Your task to perform on an android device: Play the last video I watched on Youtube Image 0: 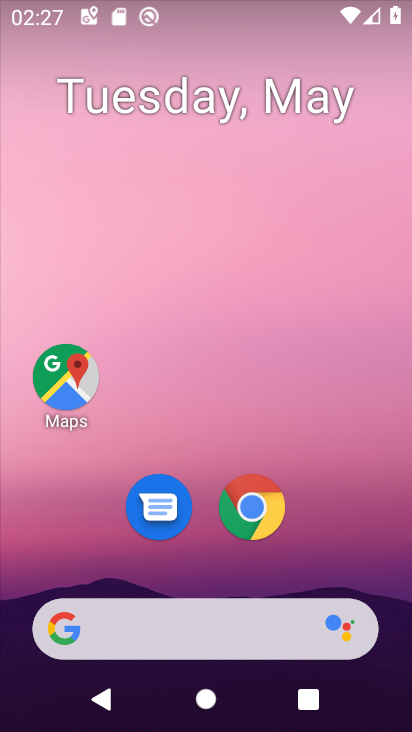
Step 0: drag from (187, 579) to (172, 176)
Your task to perform on an android device: Play the last video I watched on Youtube Image 1: 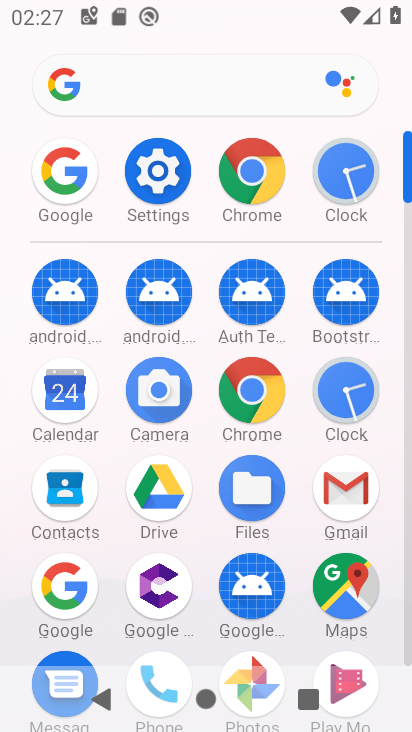
Step 1: drag from (194, 577) to (213, 283)
Your task to perform on an android device: Play the last video I watched on Youtube Image 2: 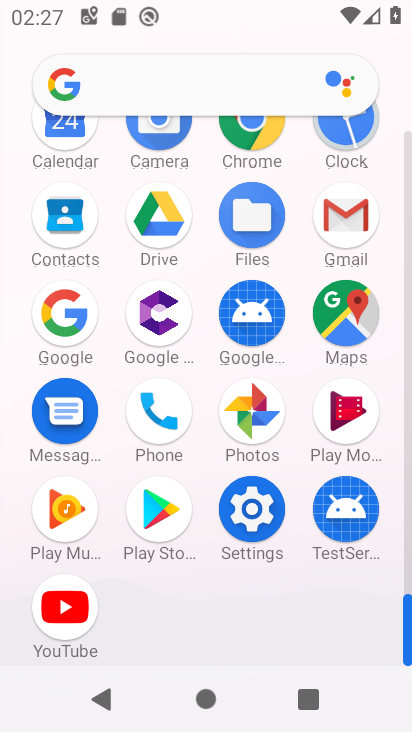
Step 2: click (71, 595)
Your task to perform on an android device: Play the last video I watched on Youtube Image 3: 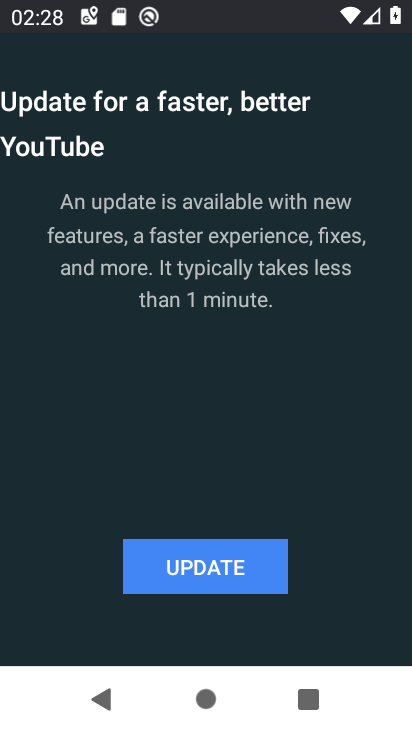
Step 3: click (194, 580)
Your task to perform on an android device: Play the last video I watched on Youtube Image 4: 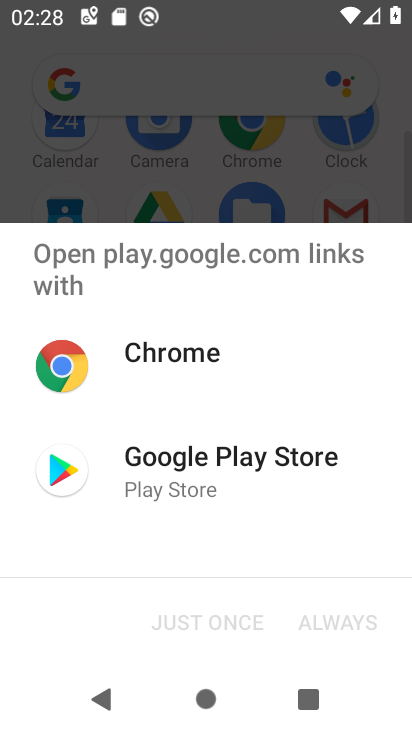
Step 4: click (221, 459)
Your task to perform on an android device: Play the last video I watched on Youtube Image 5: 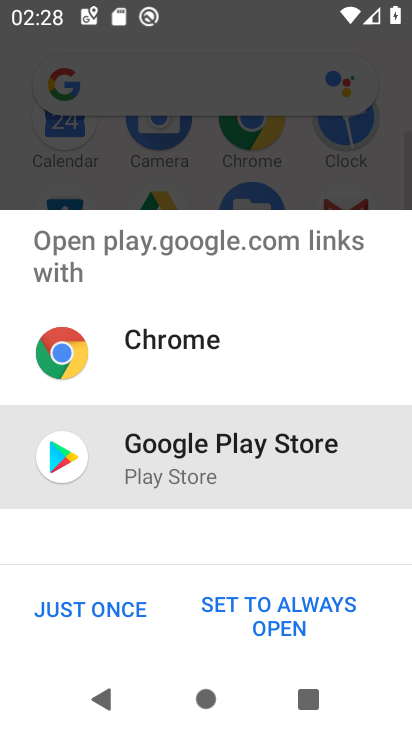
Step 5: click (118, 594)
Your task to perform on an android device: Play the last video I watched on Youtube Image 6: 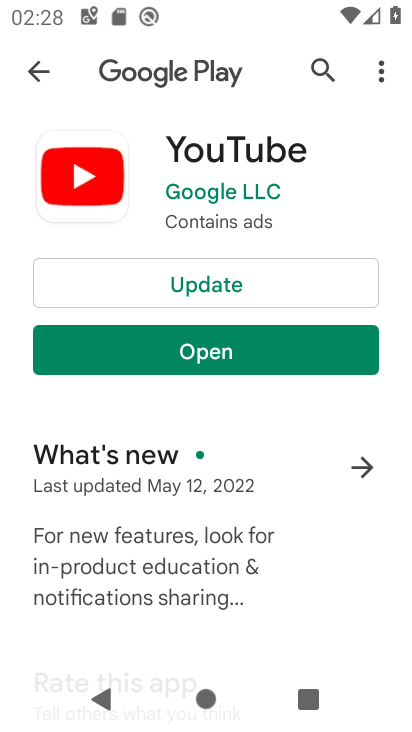
Step 6: click (192, 295)
Your task to perform on an android device: Play the last video I watched on Youtube Image 7: 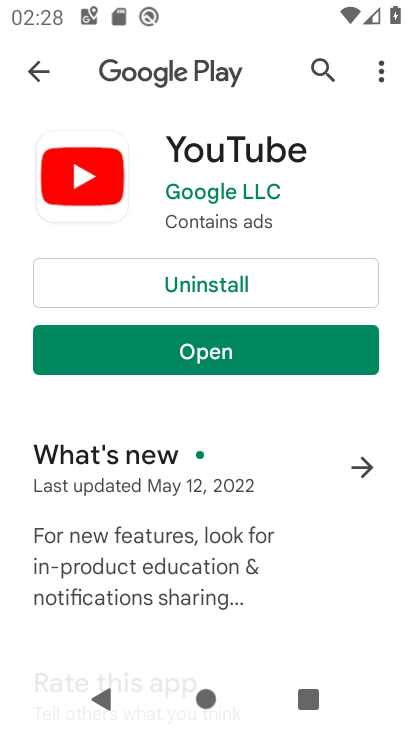
Step 7: click (353, 344)
Your task to perform on an android device: Play the last video I watched on Youtube Image 8: 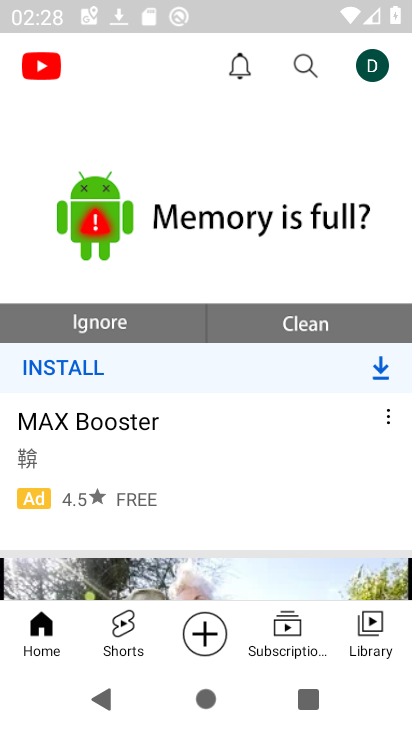
Step 8: click (372, 625)
Your task to perform on an android device: Play the last video I watched on Youtube Image 9: 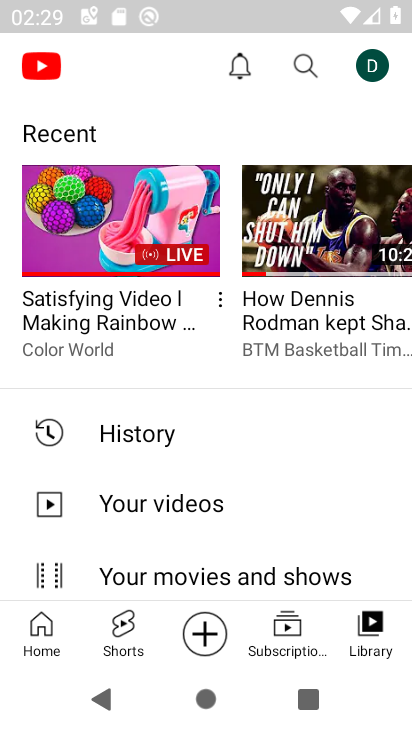
Step 9: click (186, 439)
Your task to perform on an android device: Play the last video I watched on Youtube Image 10: 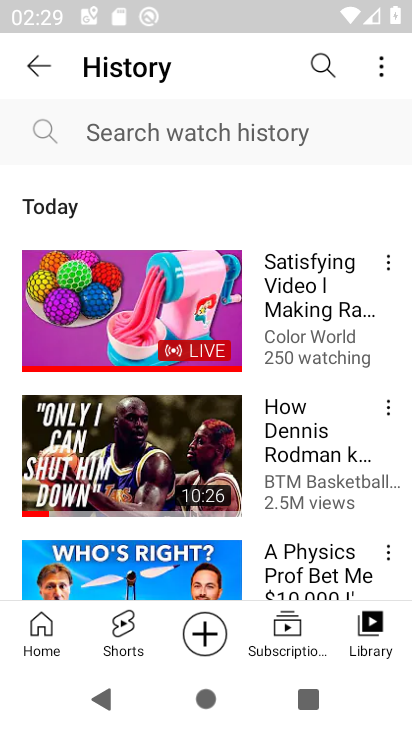
Step 10: click (159, 320)
Your task to perform on an android device: Play the last video I watched on Youtube Image 11: 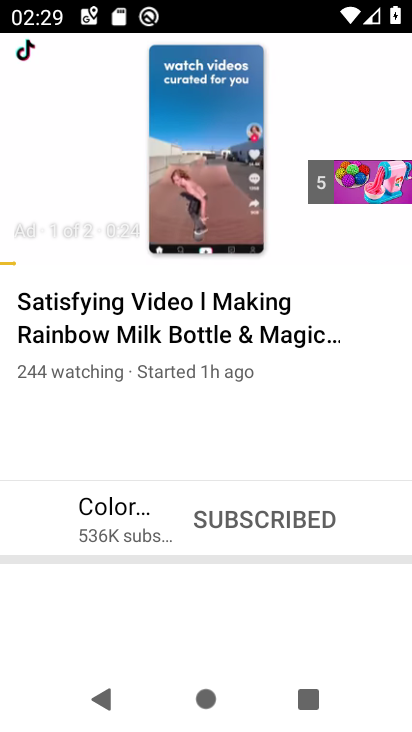
Step 11: task complete